Your task to perform on an android device: check android version Image 0: 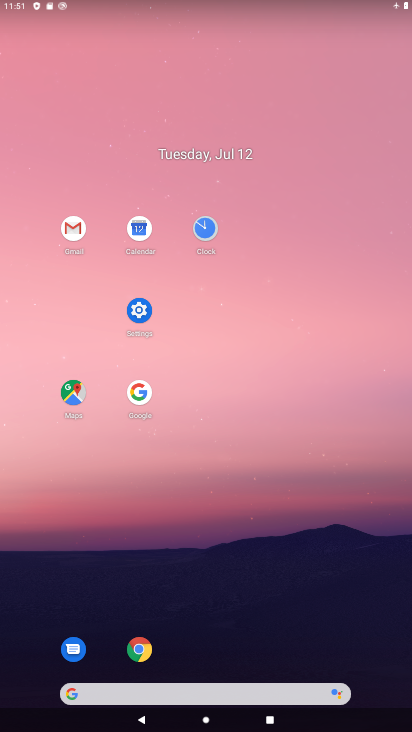
Step 0: click (140, 294)
Your task to perform on an android device: check android version Image 1: 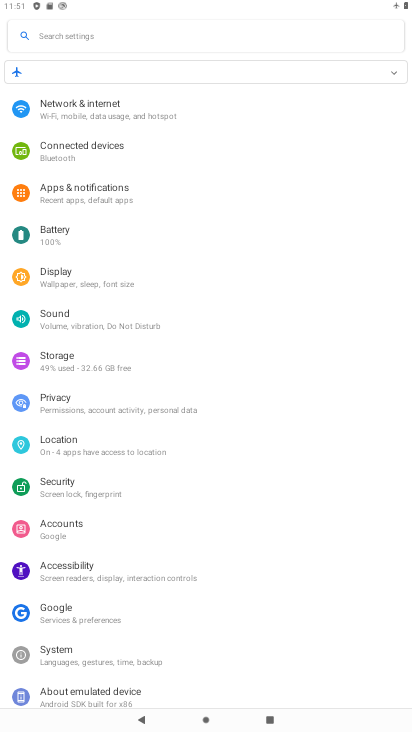
Step 1: drag from (180, 562) to (177, 173)
Your task to perform on an android device: check android version Image 2: 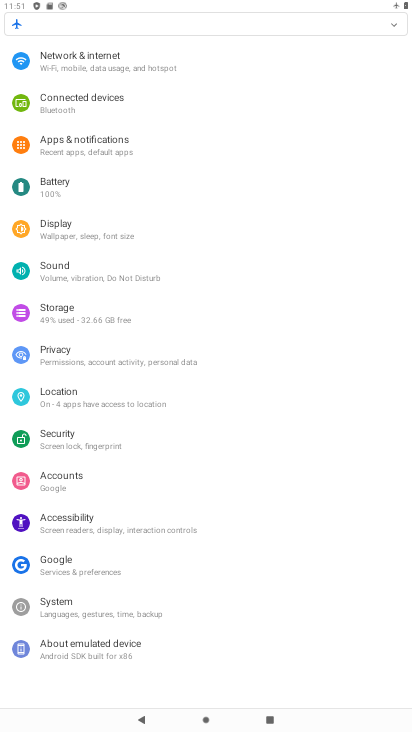
Step 2: click (99, 646)
Your task to perform on an android device: check android version Image 3: 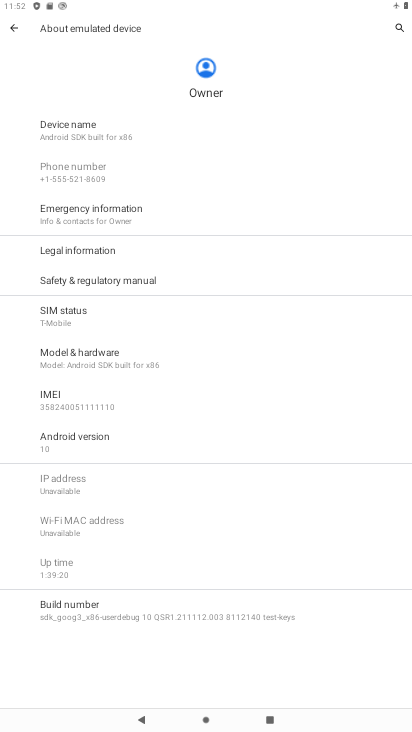
Step 3: click (78, 442)
Your task to perform on an android device: check android version Image 4: 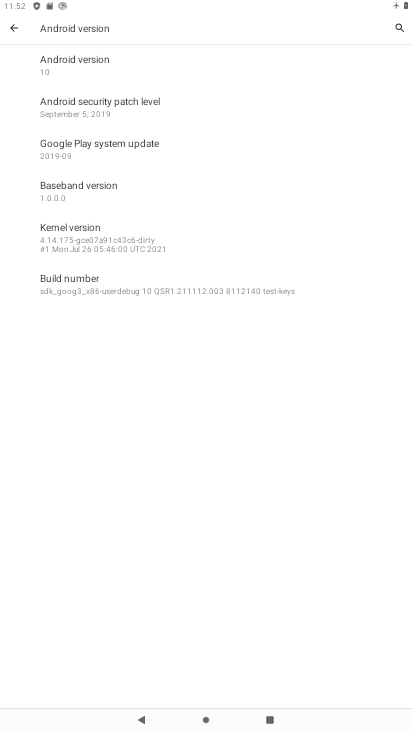
Step 4: task complete